Your task to perform on an android device: Check the settings for the Google Chrome app Image 0: 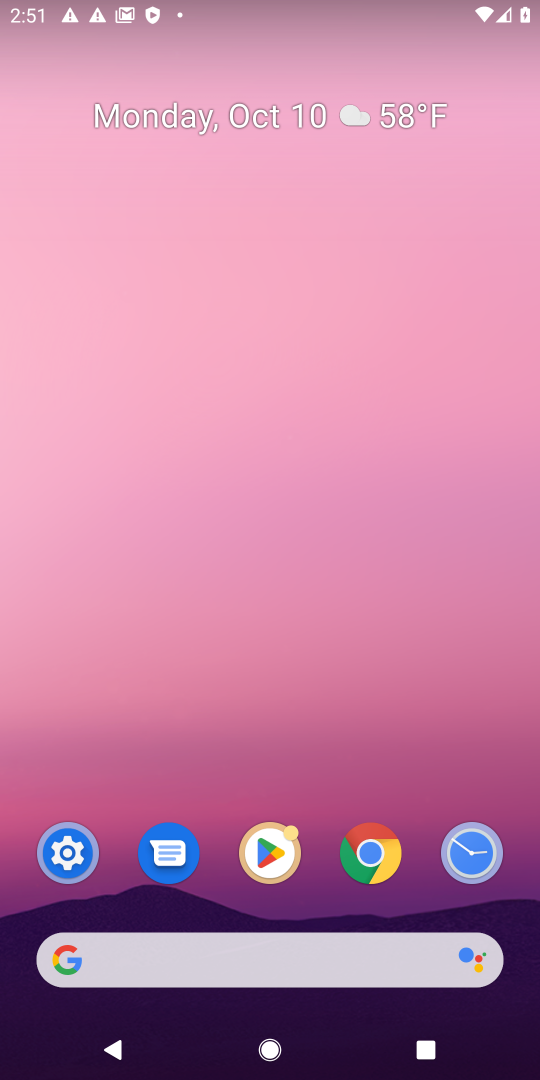
Step 0: click (365, 847)
Your task to perform on an android device: Check the settings for the Google Chrome app Image 1: 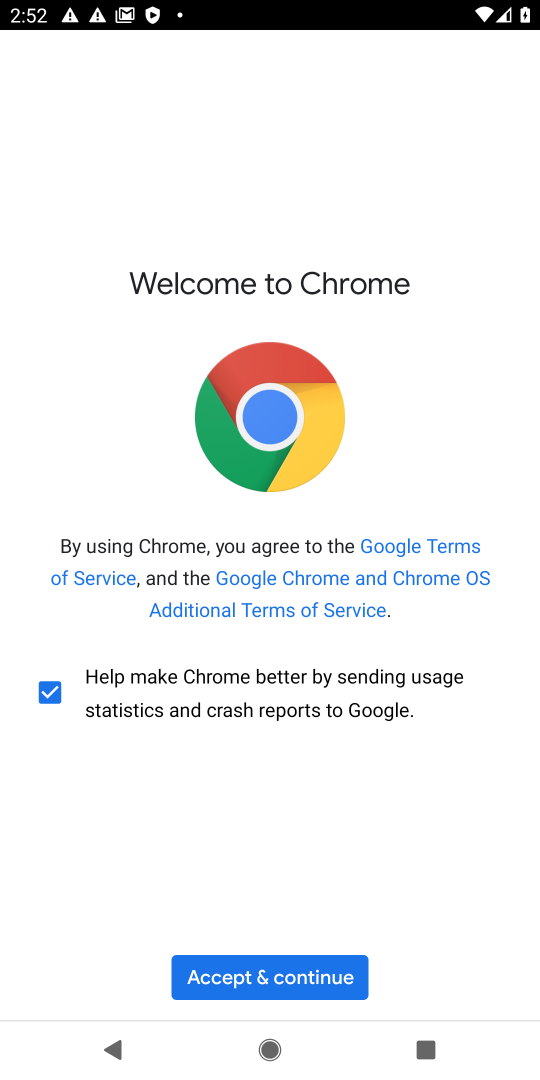
Step 1: click (259, 984)
Your task to perform on an android device: Check the settings for the Google Chrome app Image 2: 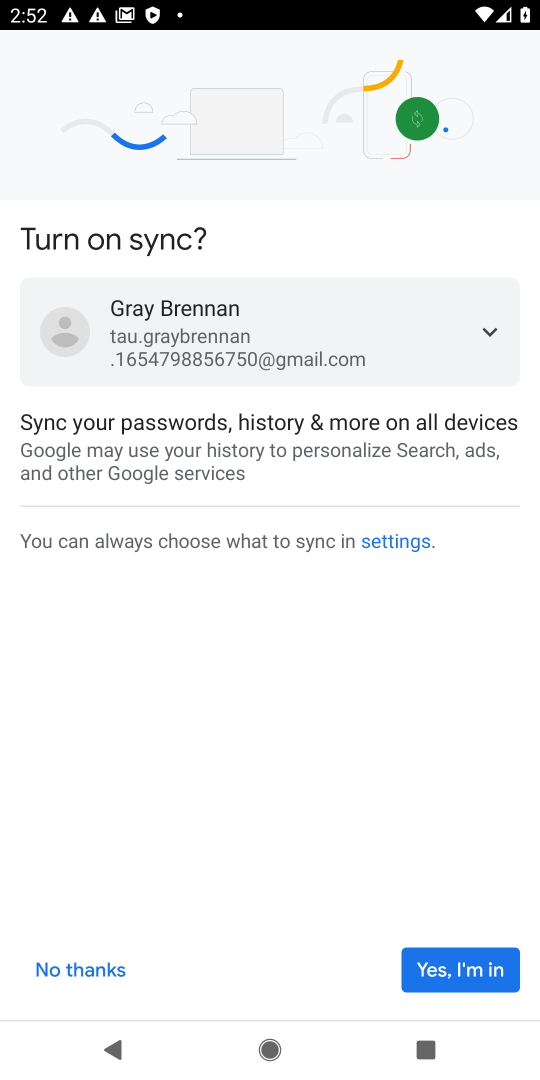
Step 2: click (434, 966)
Your task to perform on an android device: Check the settings for the Google Chrome app Image 3: 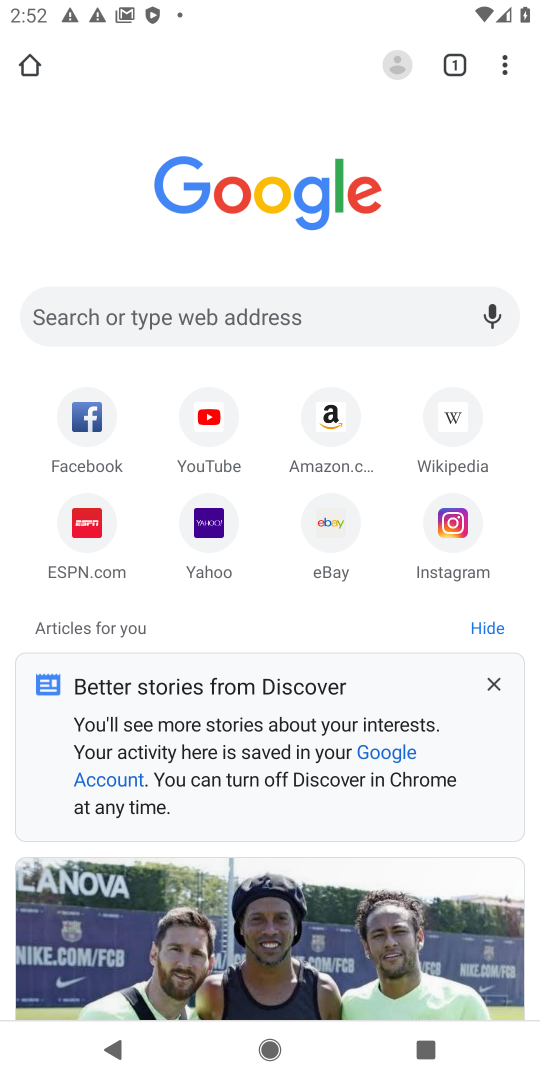
Step 3: task complete